Your task to perform on an android device: Go to ESPN.com Image 0: 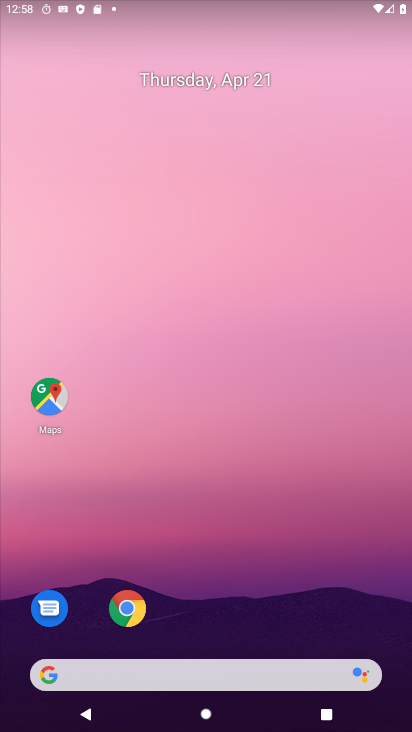
Step 0: click (243, 672)
Your task to perform on an android device: Go to ESPN.com Image 1: 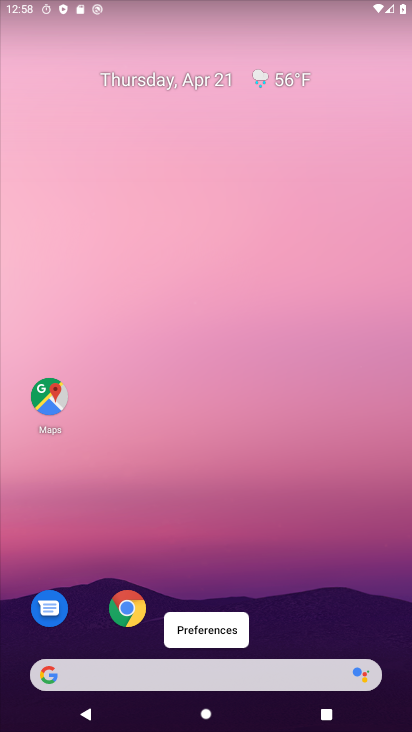
Step 1: click (130, 675)
Your task to perform on an android device: Go to ESPN.com Image 2: 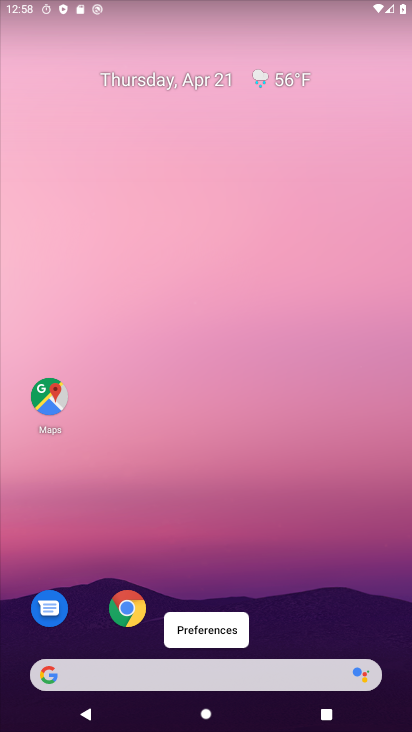
Step 2: click (145, 671)
Your task to perform on an android device: Go to ESPN.com Image 3: 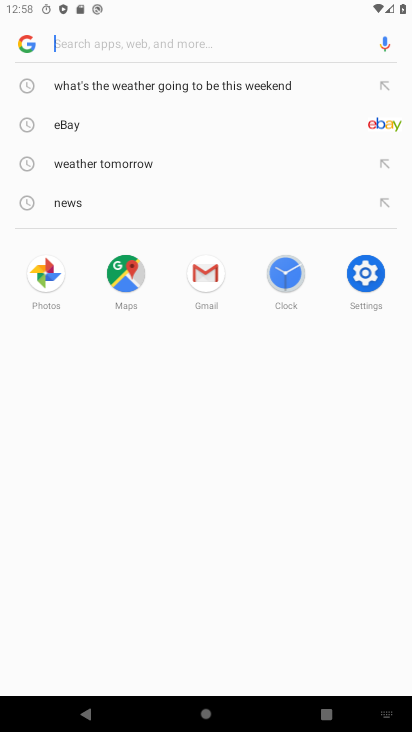
Step 3: type "ESPN.com"
Your task to perform on an android device: Go to ESPN.com Image 4: 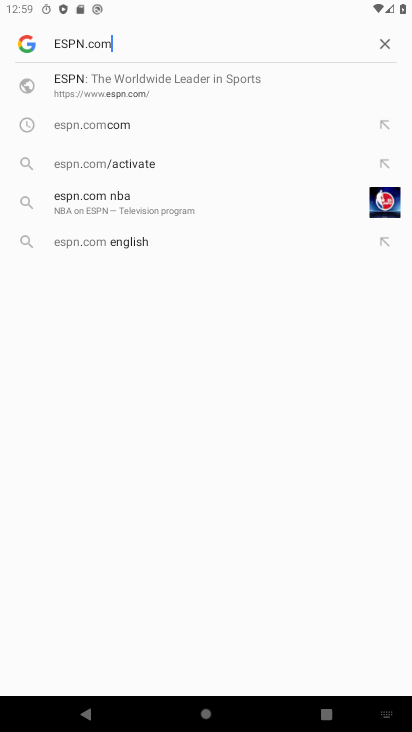
Step 4: click (85, 89)
Your task to perform on an android device: Go to ESPN.com Image 5: 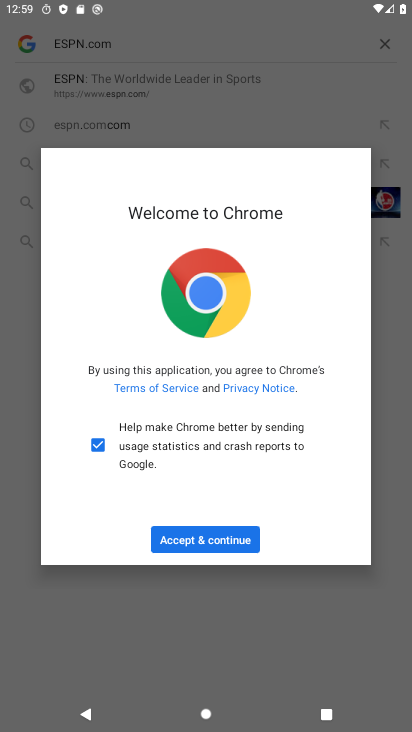
Step 5: click (235, 538)
Your task to perform on an android device: Go to ESPN.com Image 6: 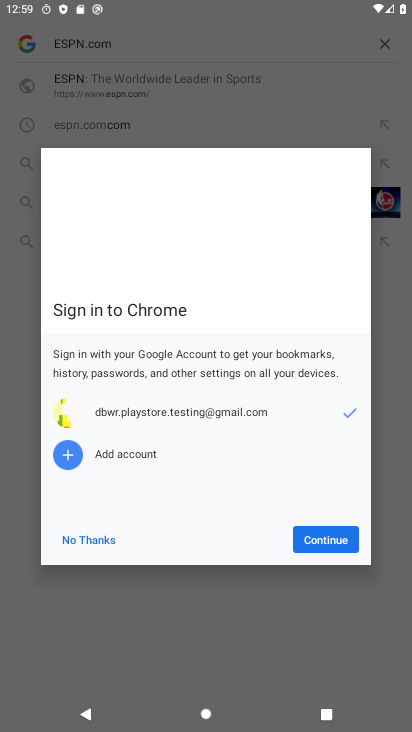
Step 6: click (315, 535)
Your task to perform on an android device: Go to ESPN.com Image 7: 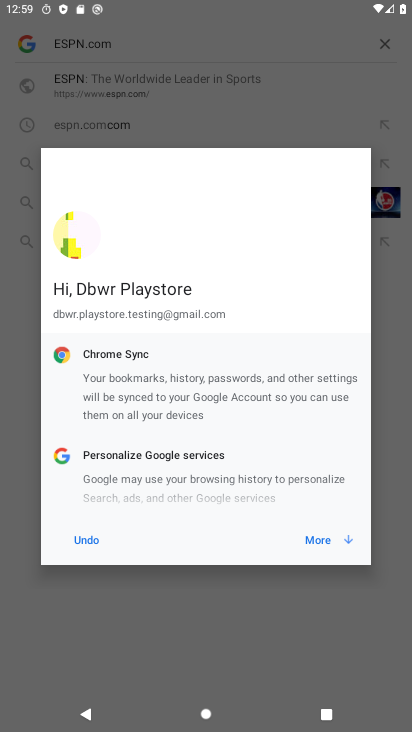
Step 7: click (315, 535)
Your task to perform on an android device: Go to ESPN.com Image 8: 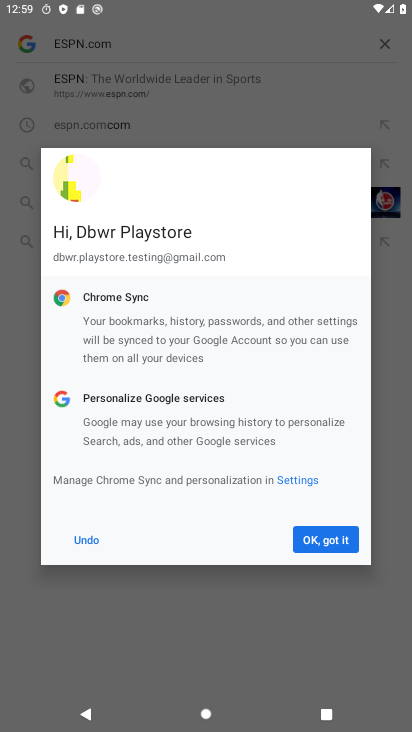
Step 8: click (315, 535)
Your task to perform on an android device: Go to ESPN.com Image 9: 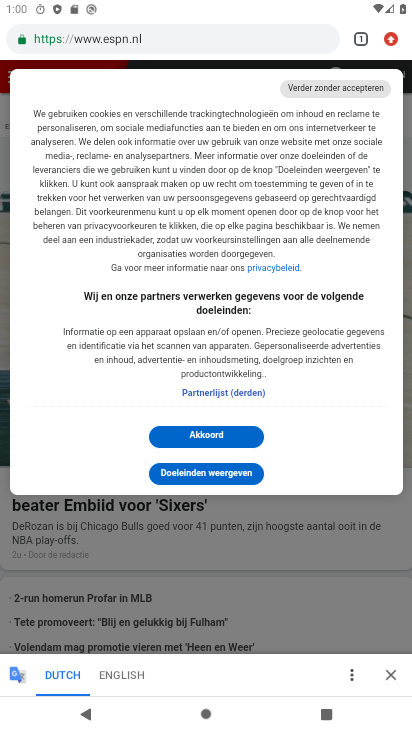
Step 9: task complete